Your task to perform on an android device: turn on bluetooth scan Image 0: 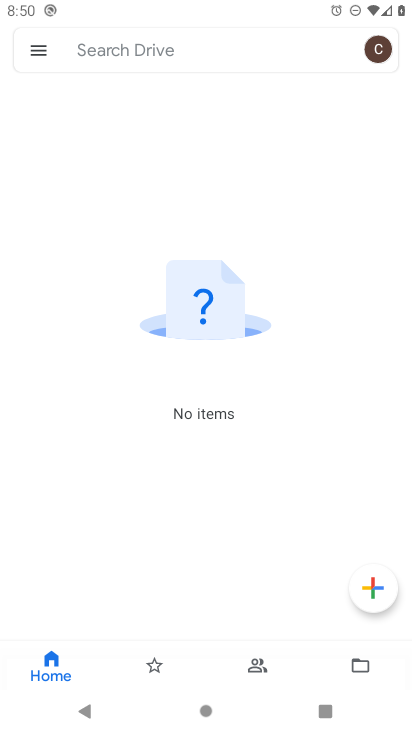
Step 0: press home button
Your task to perform on an android device: turn on bluetooth scan Image 1: 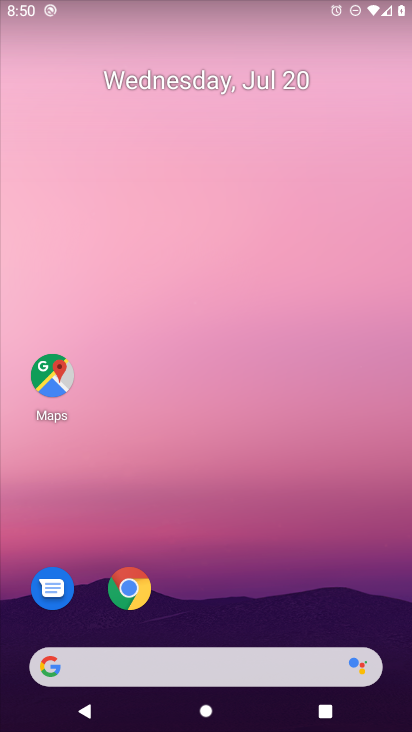
Step 1: drag from (37, 708) to (323, 61)
Your task to perform on an android device: turn on bluetooth scan Image 2: 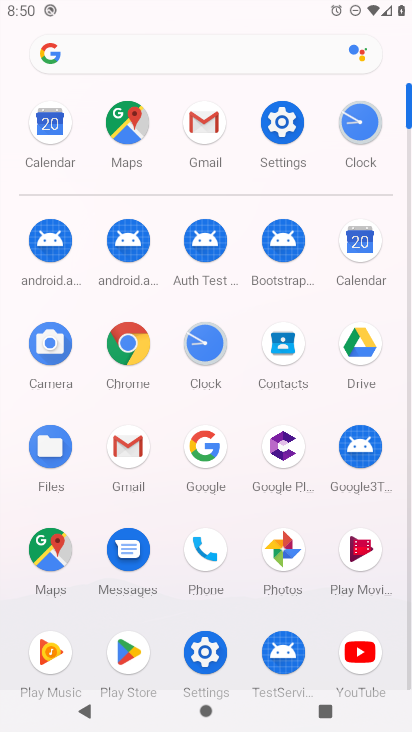
Step 2: click (205, 649)
Your task to perform on an android device: turn on bluetooth scan Image 3: 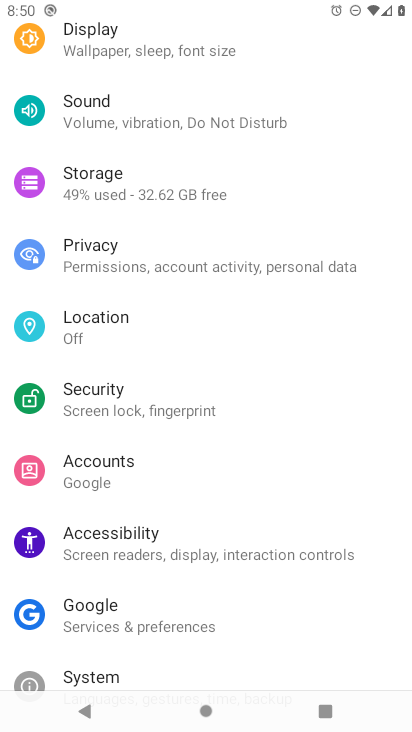
Step 3: drag from (253, 39) to (283, 475)
Your task to perform on an android device: turn on bluetooth scan Image 4: 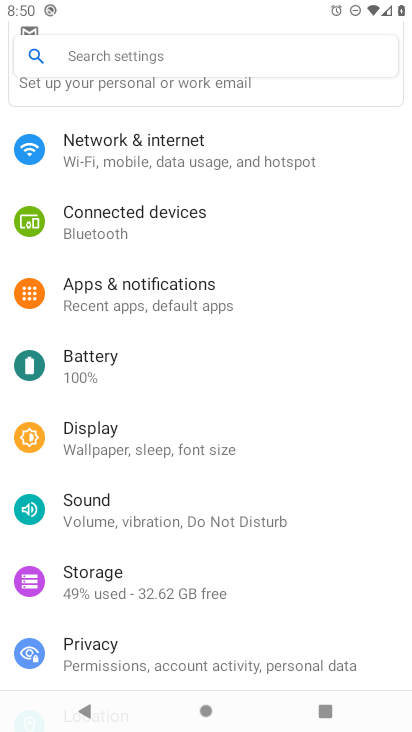
Step 4: click (145, 230)
Your task to perform on an android device: turn on bluetooth scan Image 5: 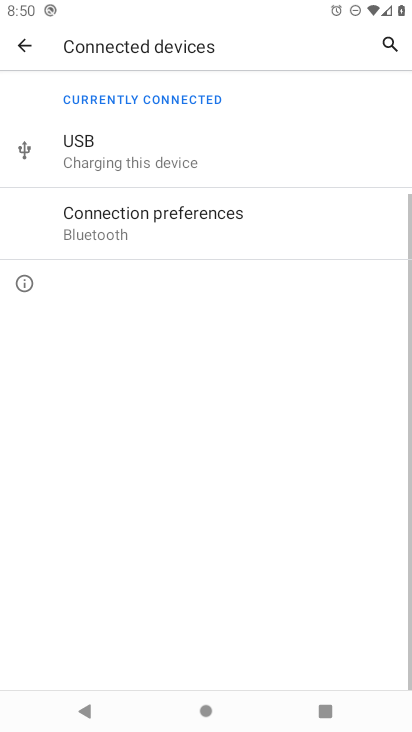
Step 5: click (146, 231)
Your task to perform on an android device: turn on bluetooth scan Image 6: 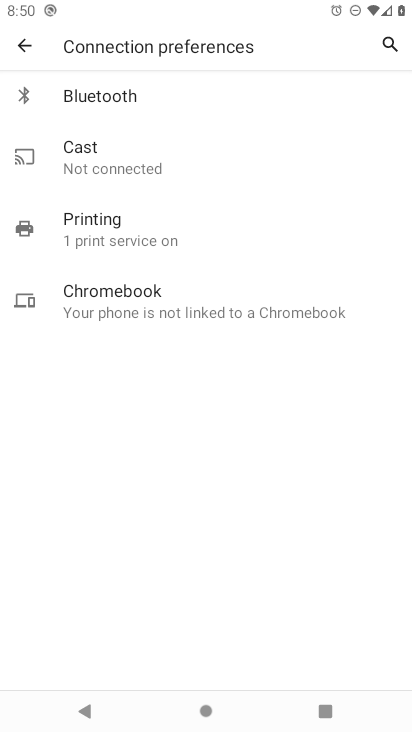
Step 6: click (131, 122)
Your task to perform on an android device: turn on bluetooth scan Image 7: 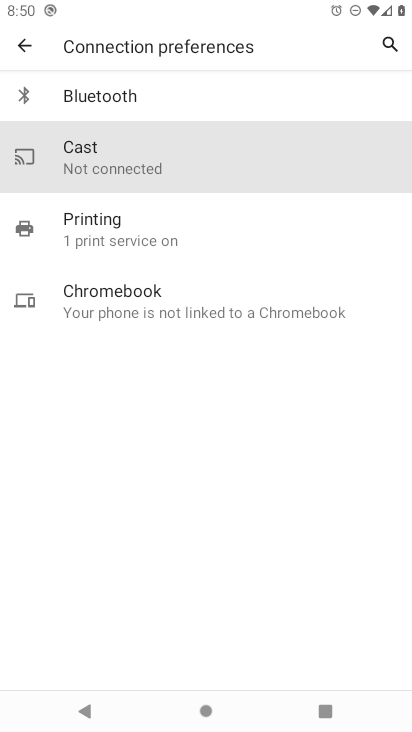
Step 7: click (131, 104)
Your task to perform on an android device: turn on bluetooth scan Image 8: 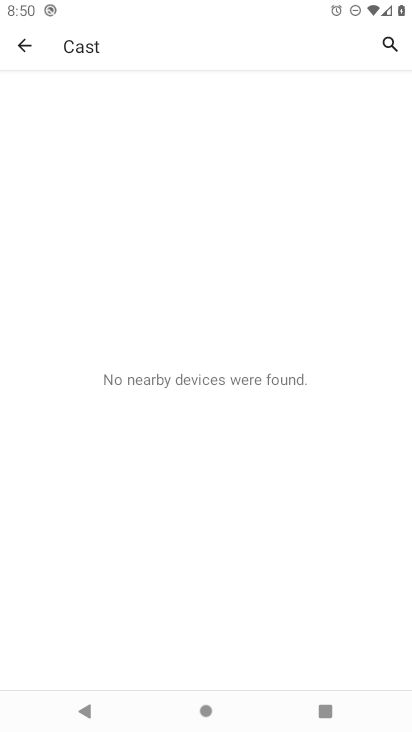
Step 8: click (20, 48)
Your task to perform on an android device: turn on bluetooth scan Image 9: 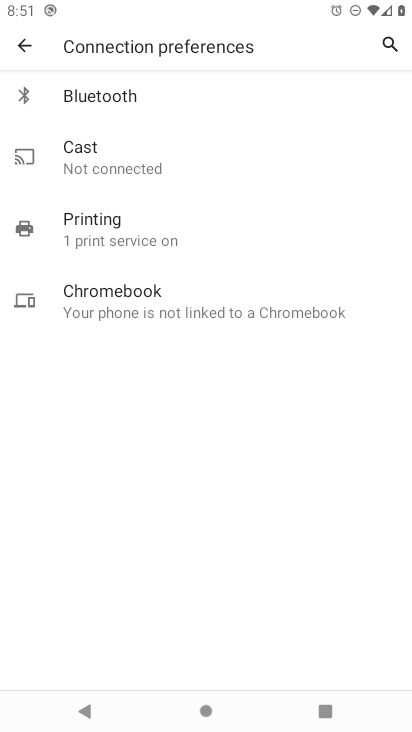
Step 9: task complete